Your task to perform on an android device: change your default location settings in chrome Image 0: 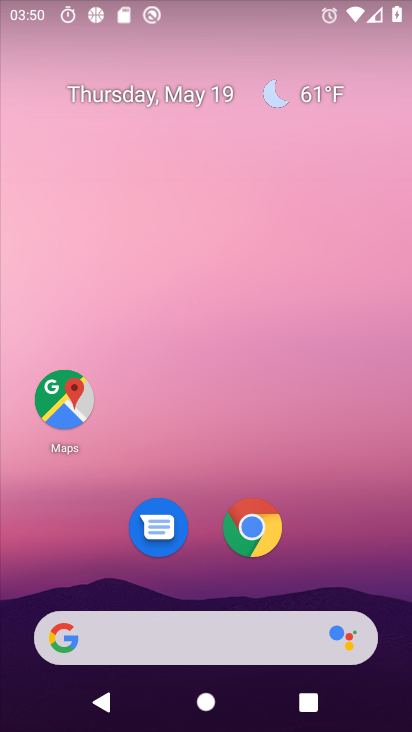
Step 0: click (257, 541)
Your task to perform on an android device: change your default location settings in chrome Image 1: 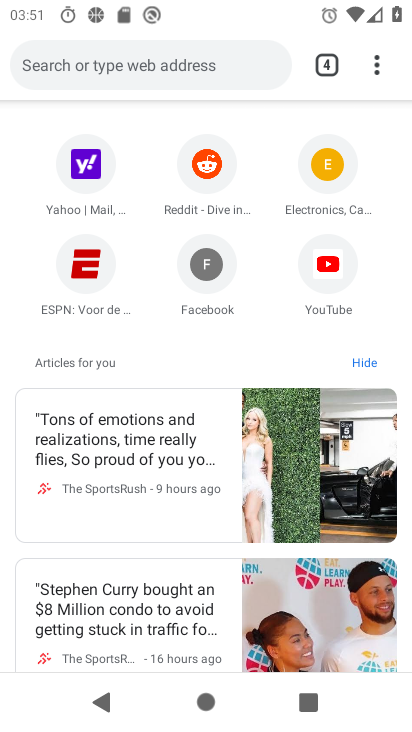
Step 1: click (372, 53)
Your task to perform on an android device: change your default location settings in chrome Image 2: 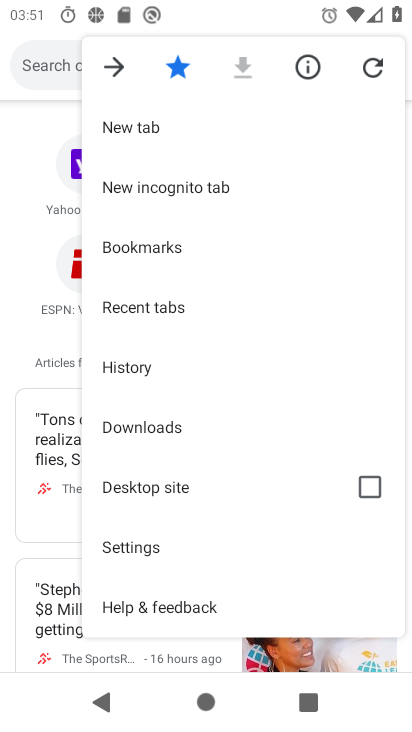
Step 2: click (178, 547)
Your task to perform on an android device: change your default location settings in chrome Image 3: 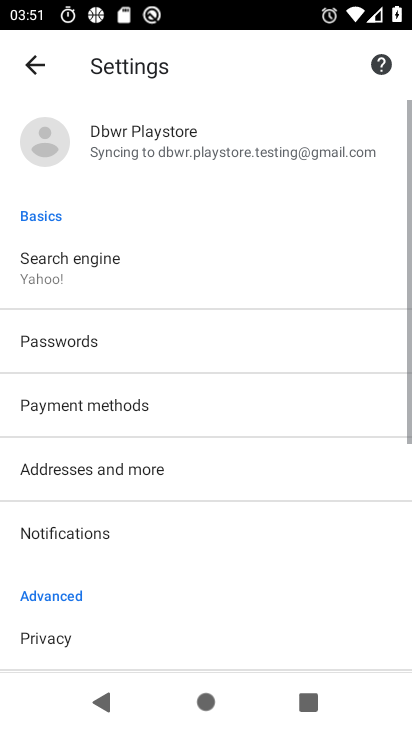
Step 3: drag from (110, 634) to (200, 191)
Your task to perform on an android device: change your default location settings in chrome Image 4: 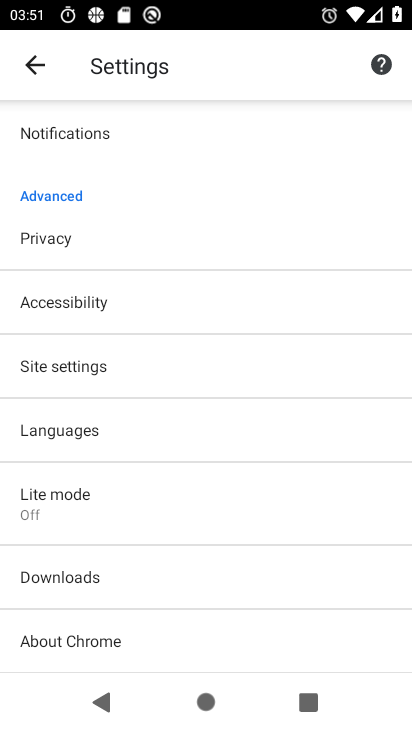
Step 4: click (74, 360)
Your task to perform on an android device: change your default location settings in chrome Image 5: 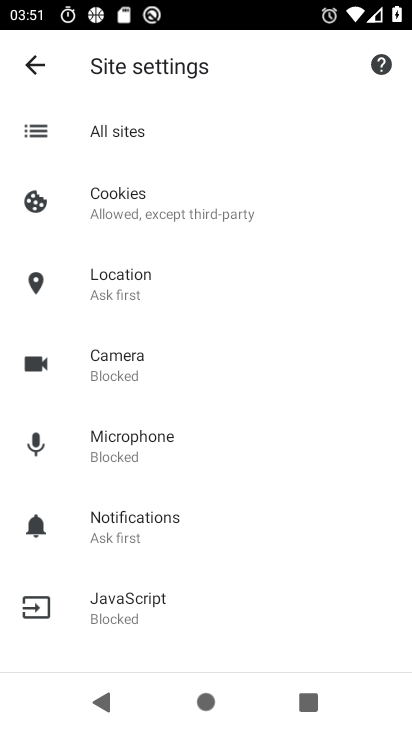
Step 5: click (161, 284)
Your task to perform on an android device: change your default location settings in chrome Image 6: 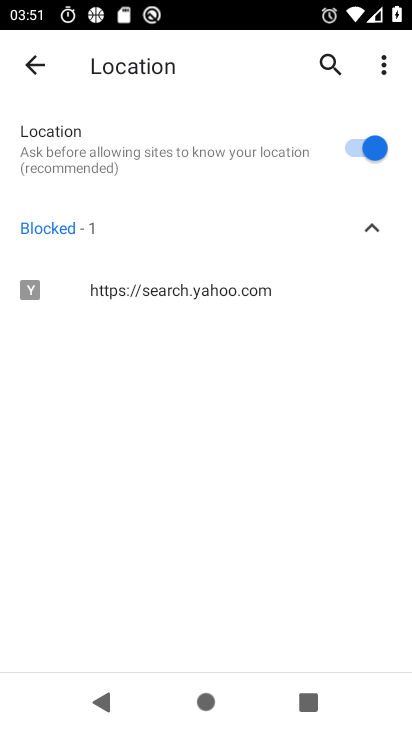
Step 6: click (365, 144)
Your task to perform on an android device: change your default location settings in chrome Image 7: 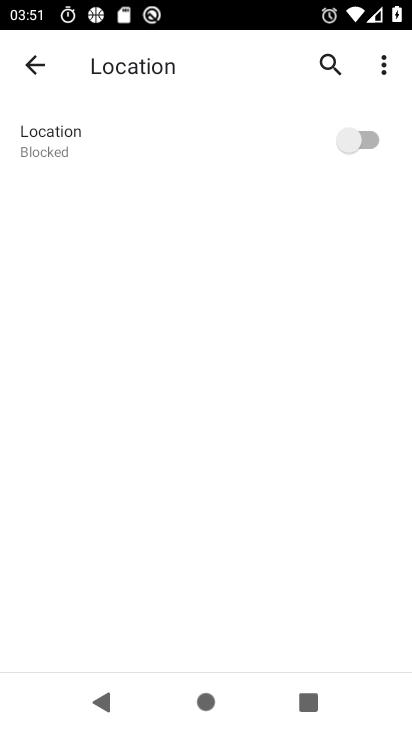
Step 7: task complete